Your task to perform on an android device: change the clock style Image 0: 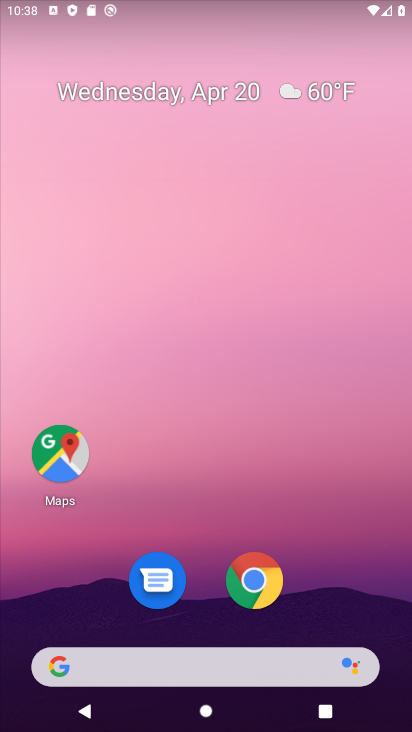
Step 0: drag from (108, 598) to (103, 119)
Your task to perform on an android device: change the clock style Image 1: 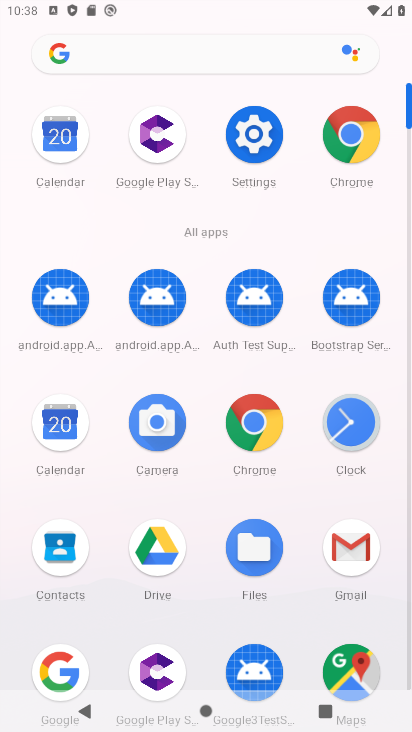
Step 1: click (336, 444)
Your task to perform on an android device: change the clock style Image 2: 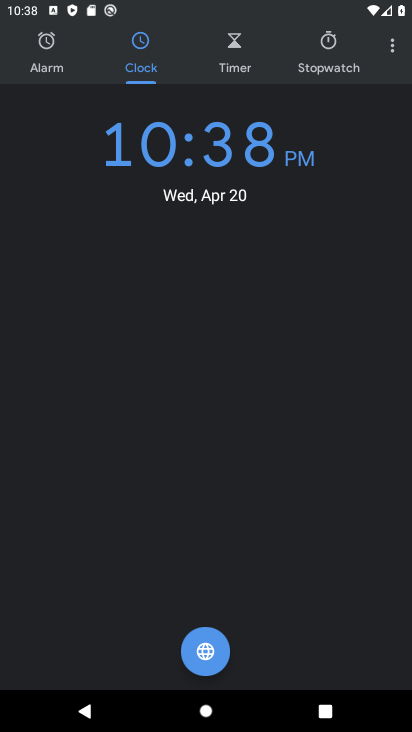
Step 2: click (390, 51)
Your task to perform on an android device: change the clock style Image 3: 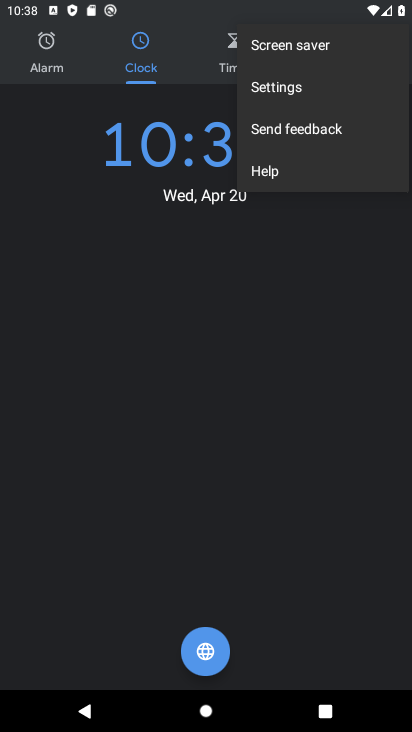
Step 3: click (282, 87)
Your task to perform on an android device: change the clock style Image 4: 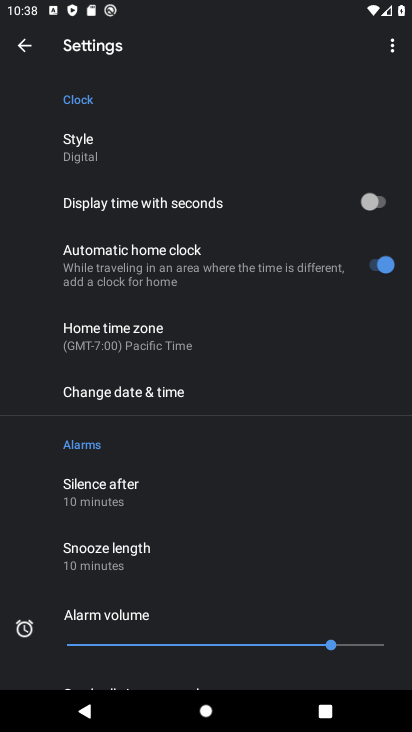
Step 4: click (124, 132)
Your task to perform on an android device: change the clock style Image 5: 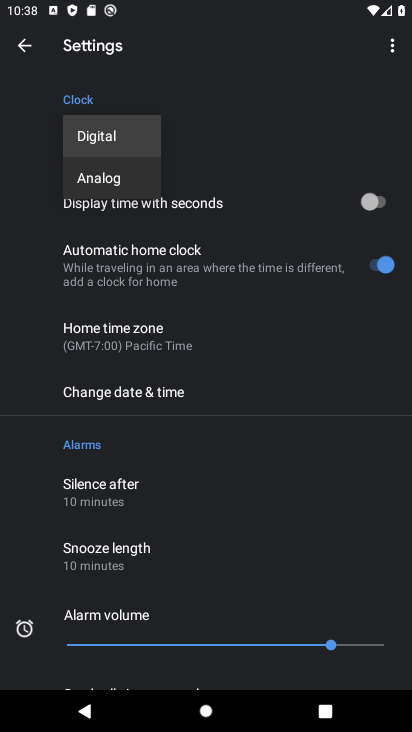
Step 5: click (109, 172)
Your task to perform on an android device: change the clock style Image 6: 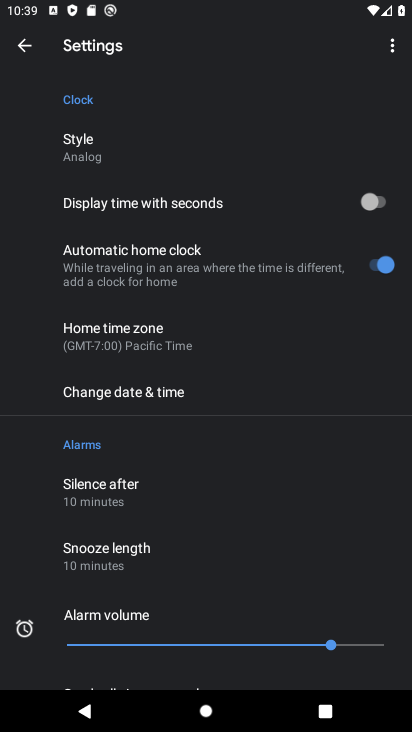
Step 6: task complete